Your task to perform on an android device: open the mobile data screen to see how much data has been used Image 0: 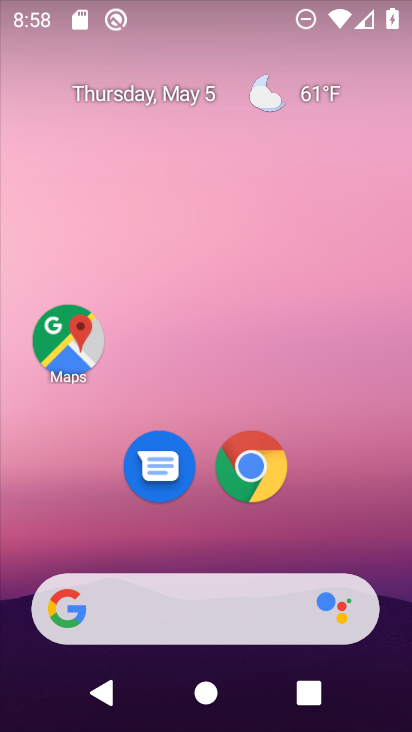
Step 0: drag from (180, 609) to (232, 156)
Your task to perform on an android device: open the mobile data screen to see how much data has been used Image 1: 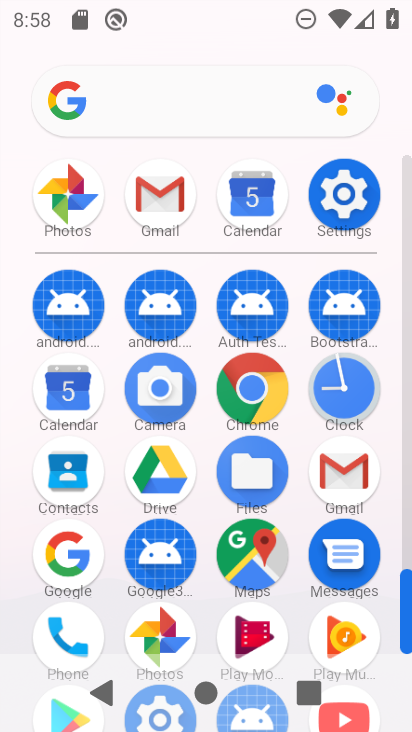
Step 1: click (339, 195)
Your task to perform on an android device: open the mobile data screen to see how much data has been used Image 2: 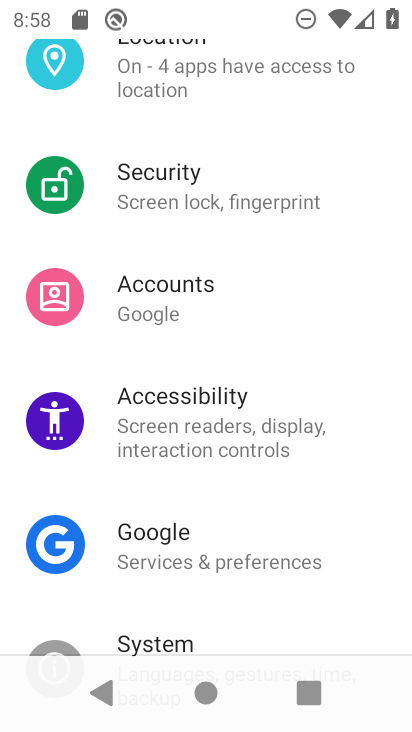
Step 2: drag from (213, 140) to (151, 618)
Your task to perform on an android device: open the mobile data screen to see how much data has been used Image 3: 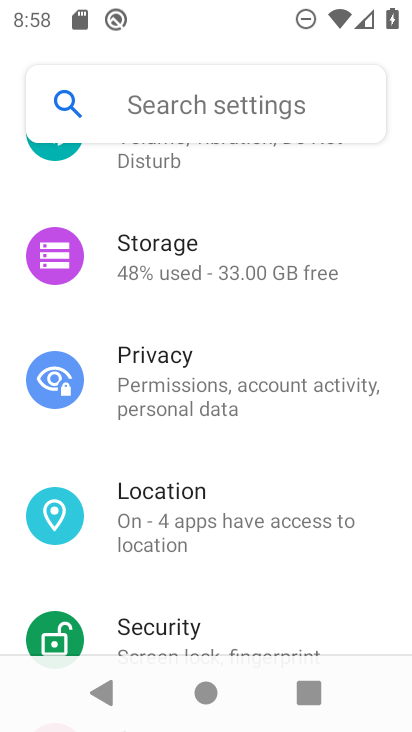
Step 3: drag from (212, 249) to (172, 557)
Your task to perform on an android device: open the mobile data screen to see how much data has been used Image 4: 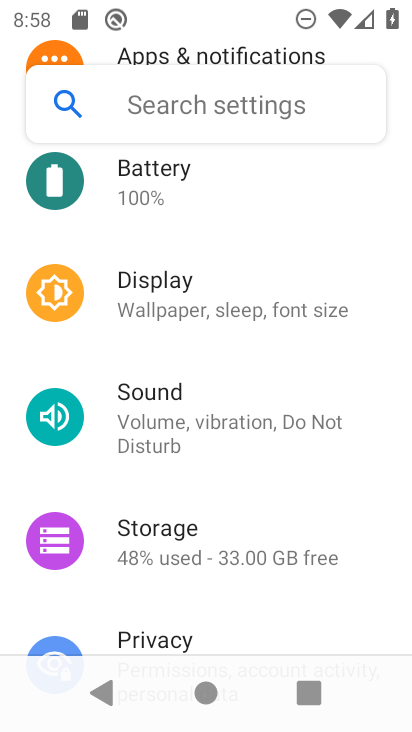
Step 4: drag from (129, 279) to (149, 639)
Your task to perform on an android device: open the mobile data screen to see how much data has been used Image 5: 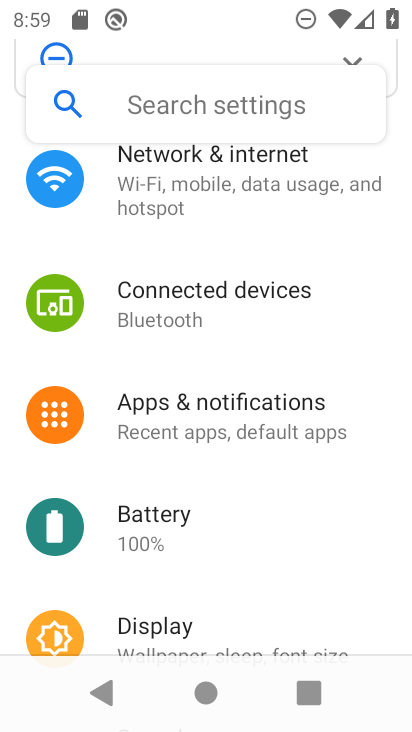
Step 5: click (152, 213)
Your task to perform on an android device: open the mobile data screen to see how much data has been used Image 6: 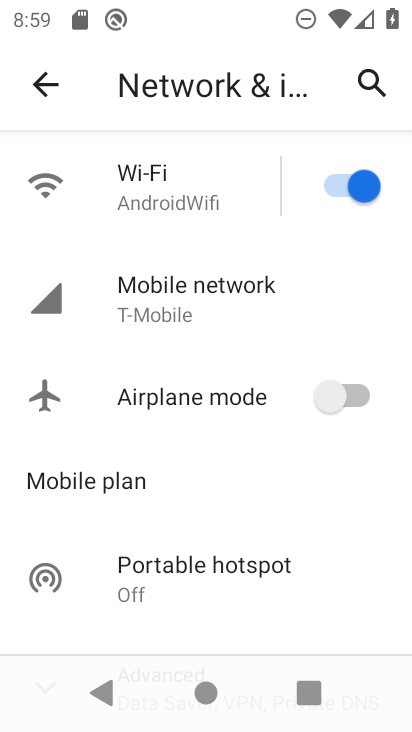
Step 6: click (202, 313)
Your task to perform on an android device: open the mobile data screen to see how much data has been used Image 7: 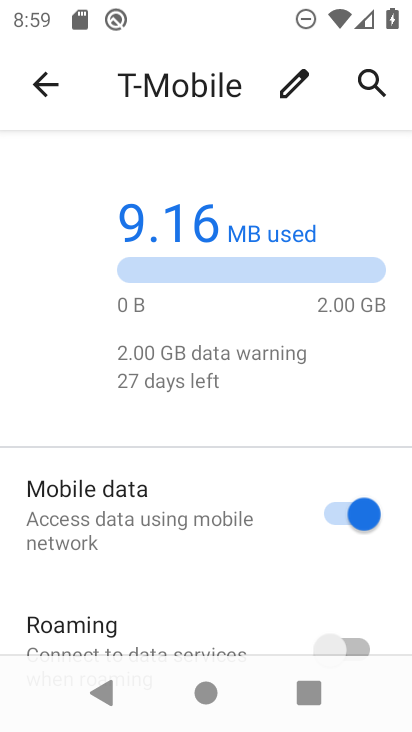
Step 7: task complete